Your task to perform on an android device: Set the phone to "Do not disturb". Image 0: 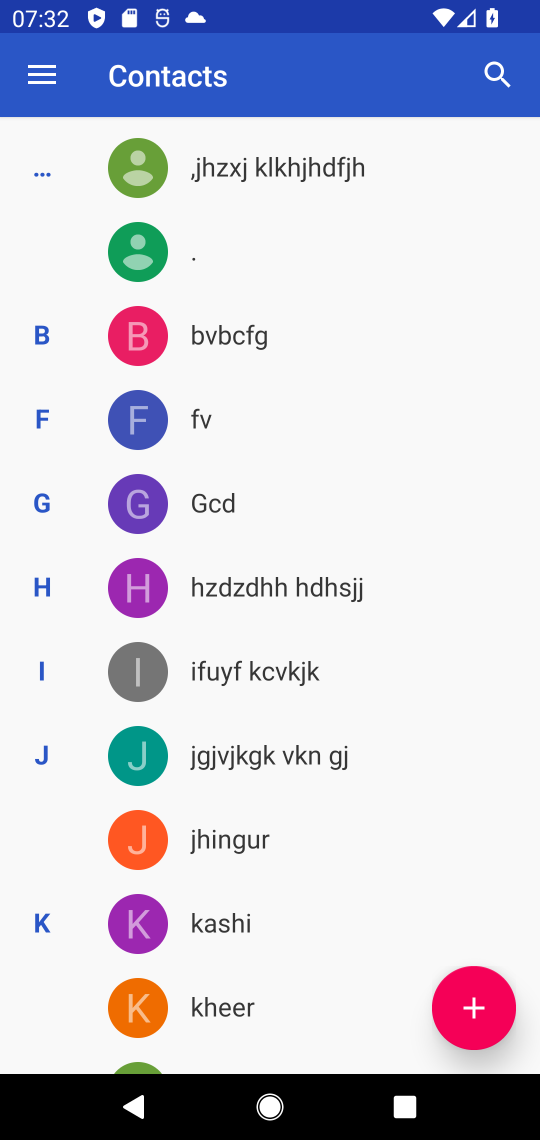
Step 0: press home button
Your task to perform on an android device: Set the phone to "Do not disturb". Image 1: 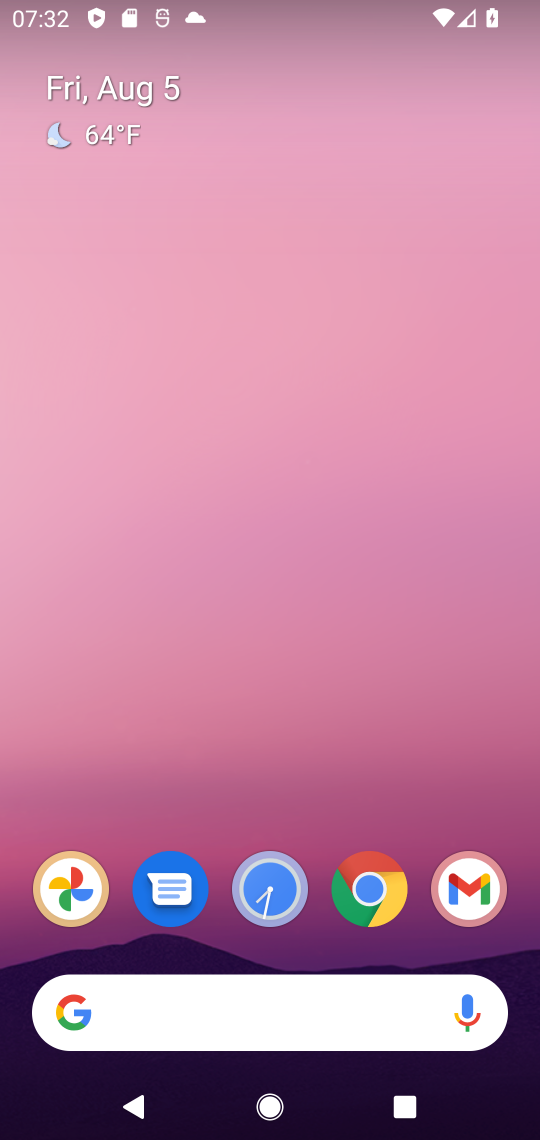
Step 1: drag from (240, 820) to (227, 293)
Your task to perform on an android device: Set the phone to "Do not disturb". Image 2: 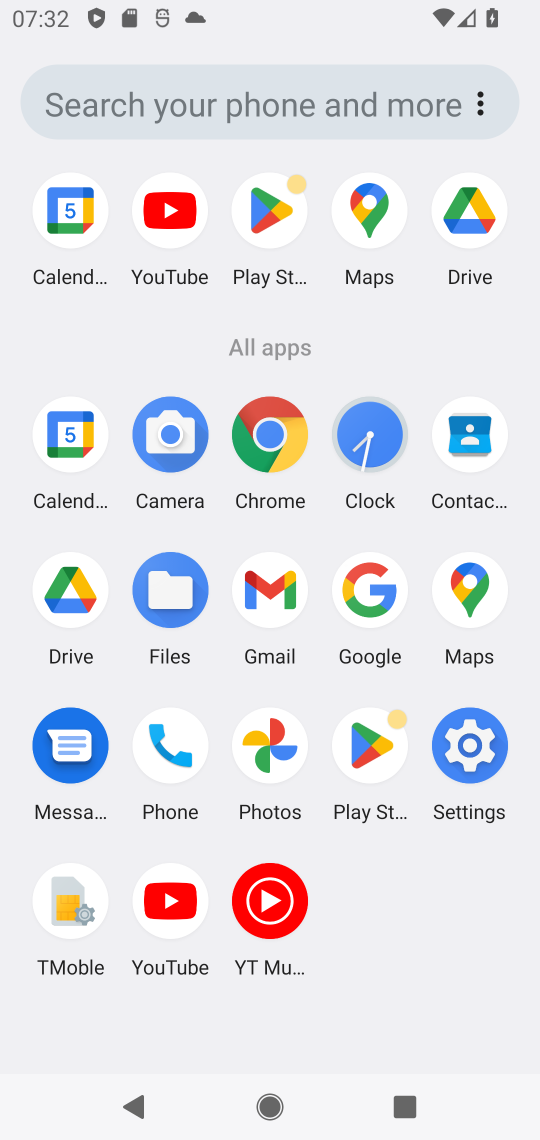
Step 2: click (490, 742)
Your task to perform on an android device: Set the phone to "Do not disturb". Image 3: 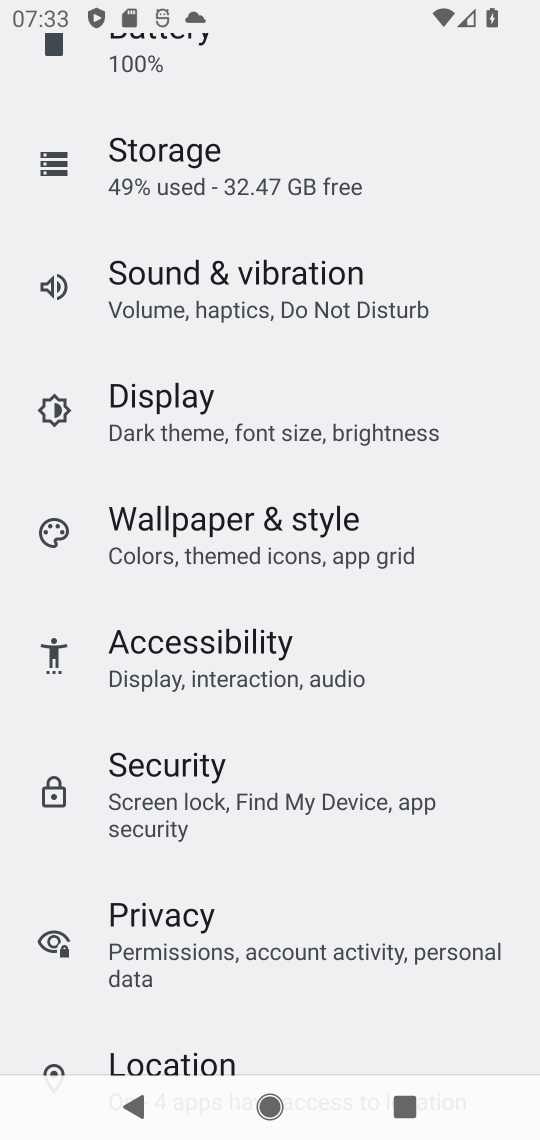
Step 3: drag from (303, 956) to (301, 454)
Your task to perform on an android device: Set the phone to "Do not disturb". Image 4: 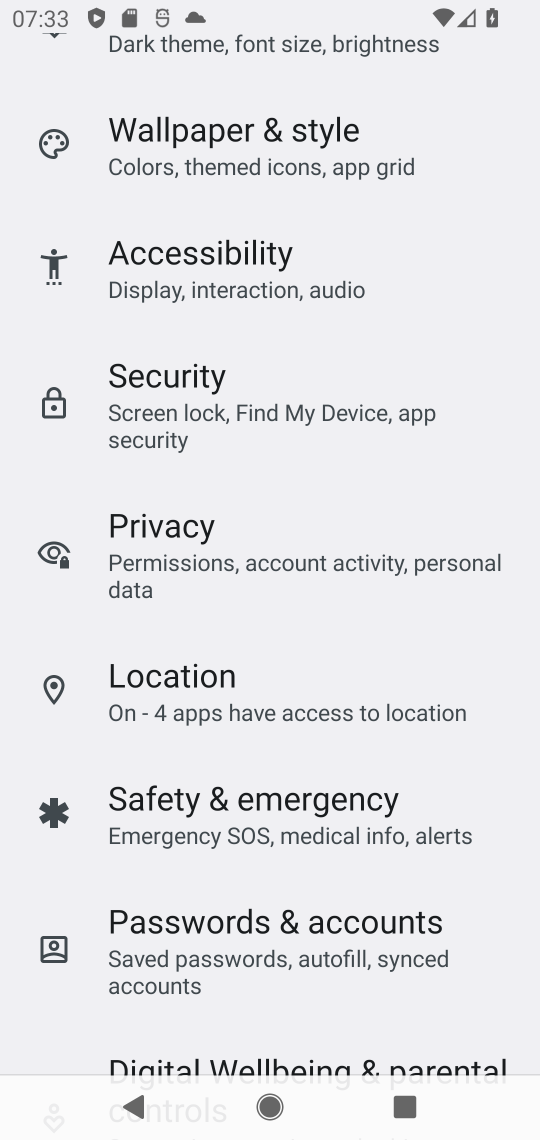
Step 4: drag from (278, 124) to (276, 672)
Your task to perform on an android device: Set the phone to "Do not disturb". Image 5: 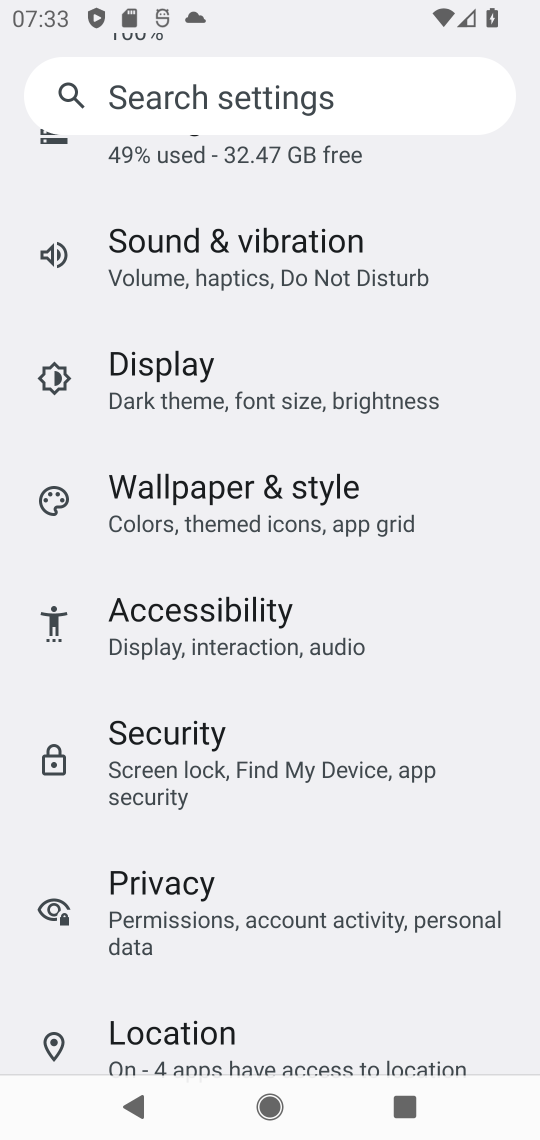
Step 5: click (238, 260)
Your task to perform on an android device: Set the phone to "Do not disturb". Image 6: 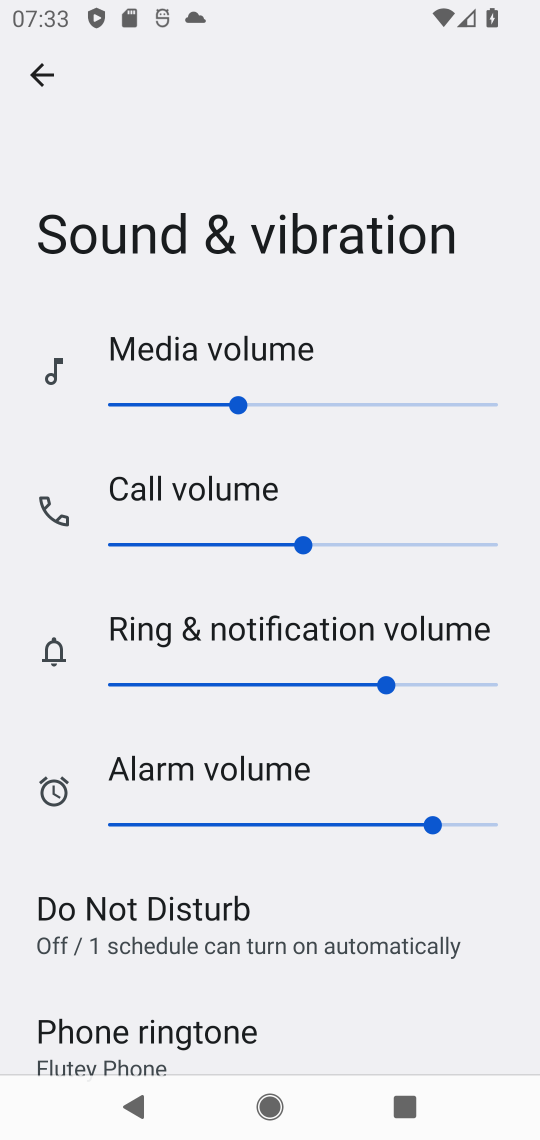
Step 6: drag from (284, 923) to (241, 394)
Your task to perform on an android device: Set the phone to "Do not disturb". Image 7: 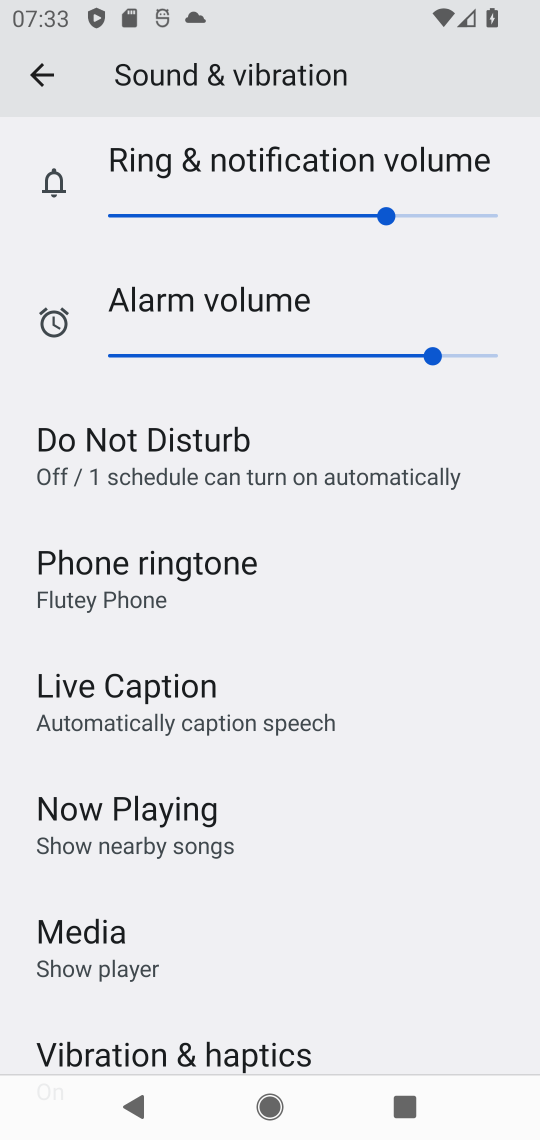
Step 7: click (115, 508)
Your task to perform on an android device: Set the phone to "Do not disturb". Image 8: 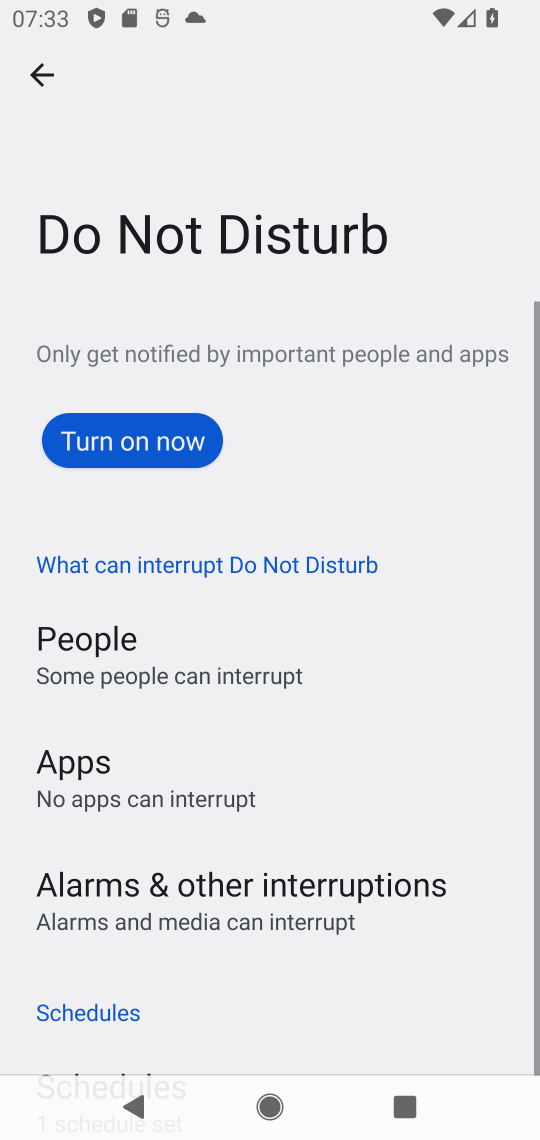
Step 8: click (120, 456)
Your task to perform on an android device: Set the phone to "Do not disturb". Image 9: 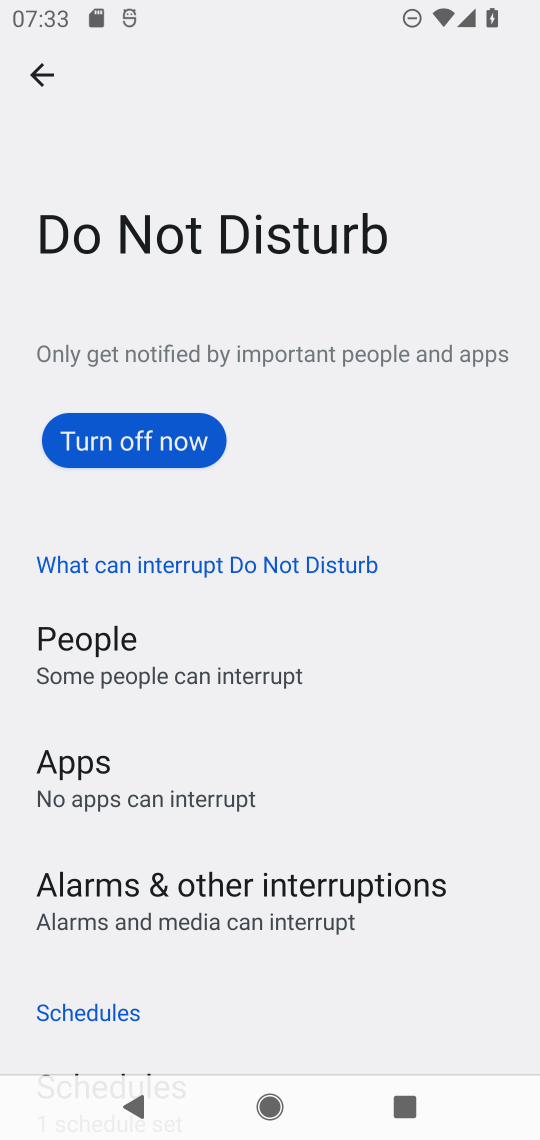
Step 9: task complete